Your task to perform on an android device: toggle show notifications on the lock screen Image 0: 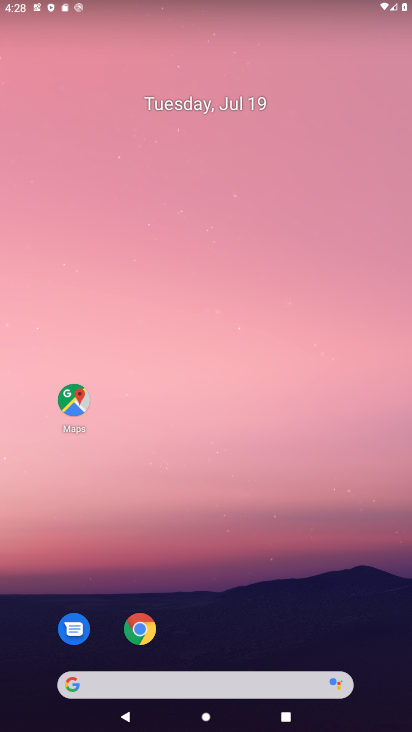
Step 0: drag from (243, 590) to (243, 315)
Your task to perform on an android device: toggle show notifications on the lock screen Image 1: 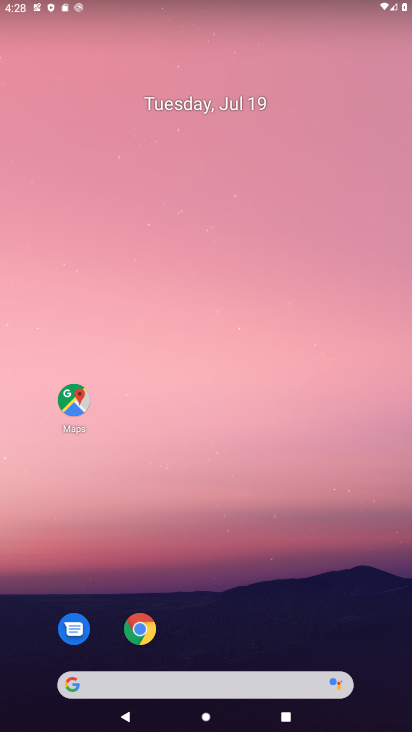
Step 1: drag from (228, 658) to (234, 225)
Your task to perform on an android device: toggle show notifications on the lock screen Image 2: 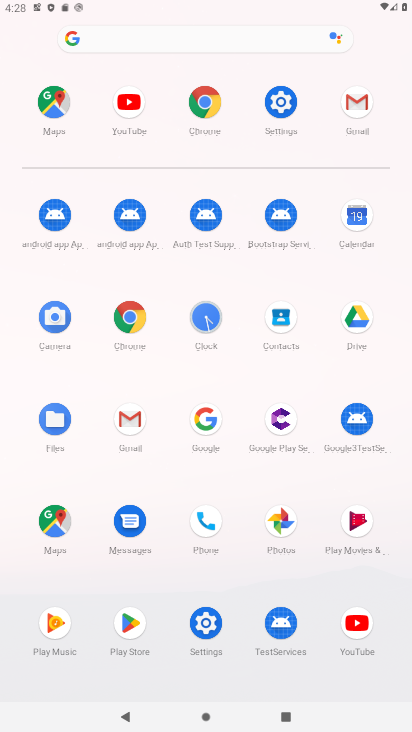
Step 2: click (291, 100)
Your task to perform on an android device: toggle show notifications on the lock screen Image 3: 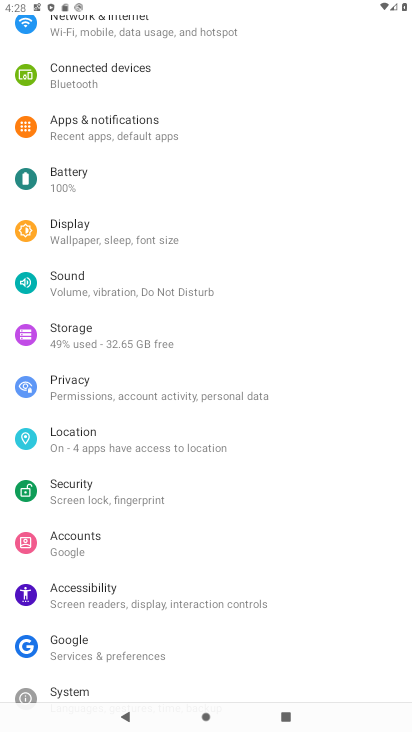
Step 3: click (72, 371)
Your task to perform on an android device: toggle show notifications on the lock screen Image 4: 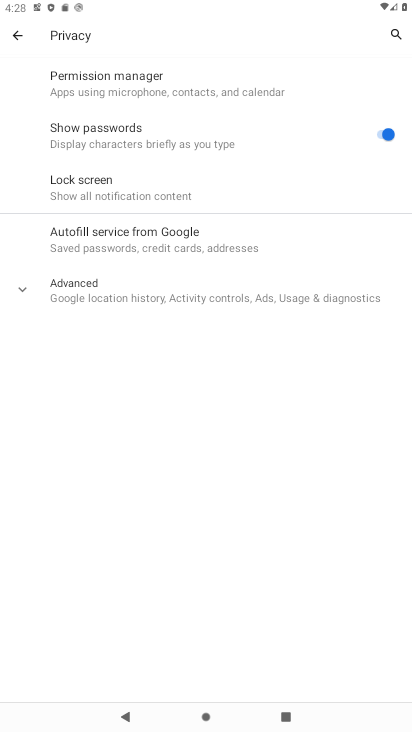
Step 4: click (71, 185)
Your task to perform on an android device: toggle show notifications on the lock screen Image 5: 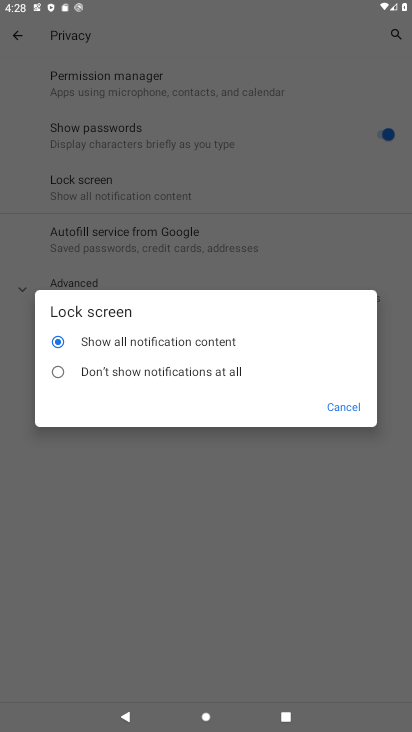
Step 5: click (328, 410)
Your task to perform on an android device: toggle show notifications on the lock screen Image 6: 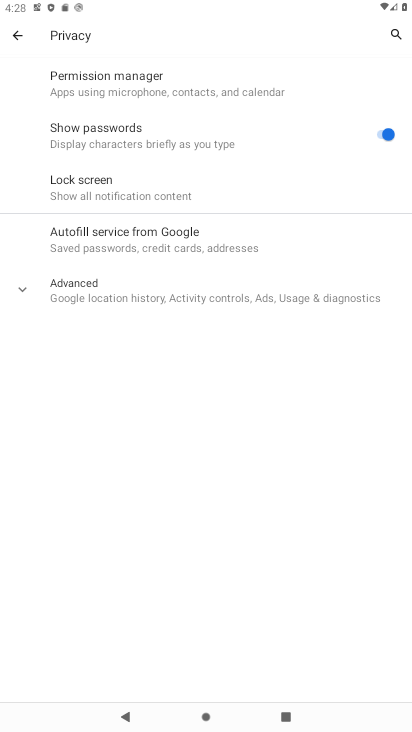
Step 6: task complete